Your task to perform on an android device: turn pop-ups on in chrome Image 0: 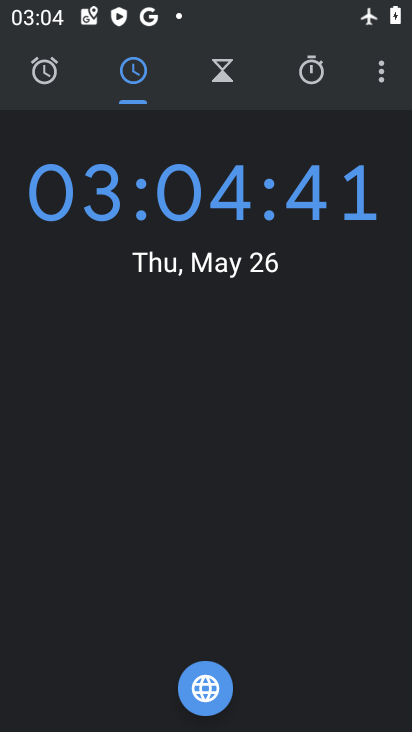
Step 0: press home button
Your task to perform on an android device: turn pop-ups on in chrome Image 1: 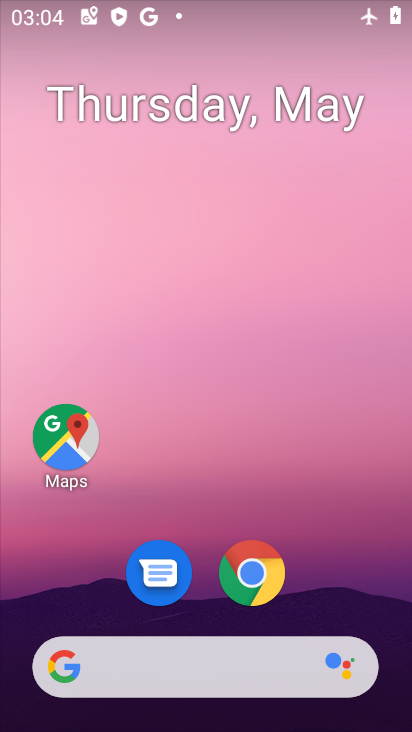
Step 1: click (250, 571)
Your task to perform on an android device: turn pop-ups on in chrome Image 2: 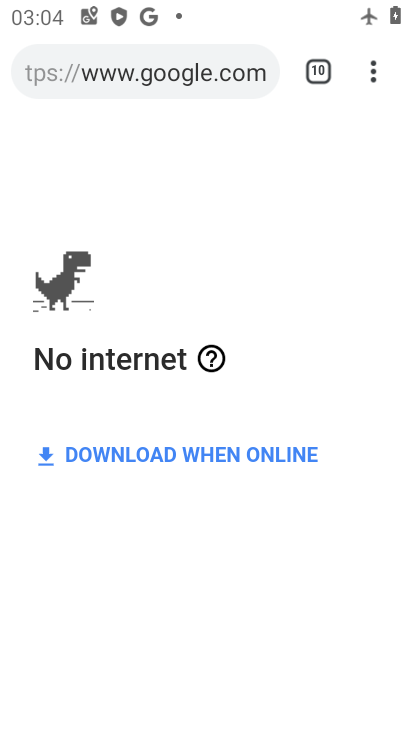
Step 2: click (354, 60)
Your task to perform on an android device: turn pop-ups on in chrome Image 3: 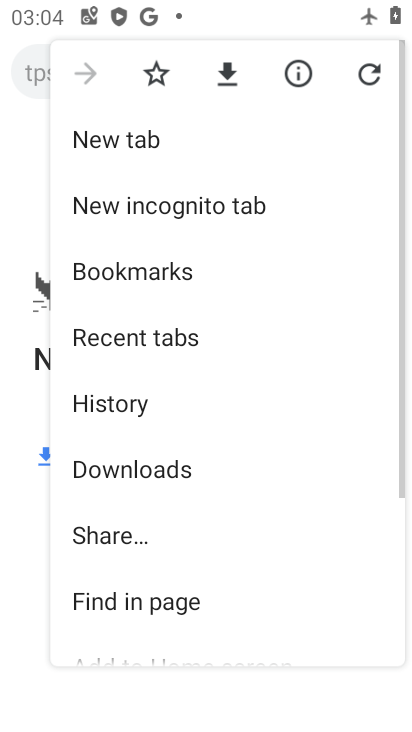
Step 3: drag from (182, 574) to (207, 276)
Your task to perform on an android device: turn pop-ups on in chrome Image 4: 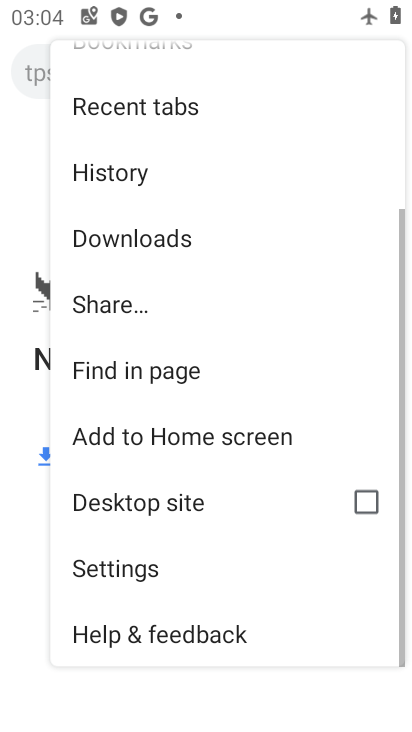
Step 4: click (139, 578)
Your task to perform on an android device: turn pop-ups on in chrome Image 5: 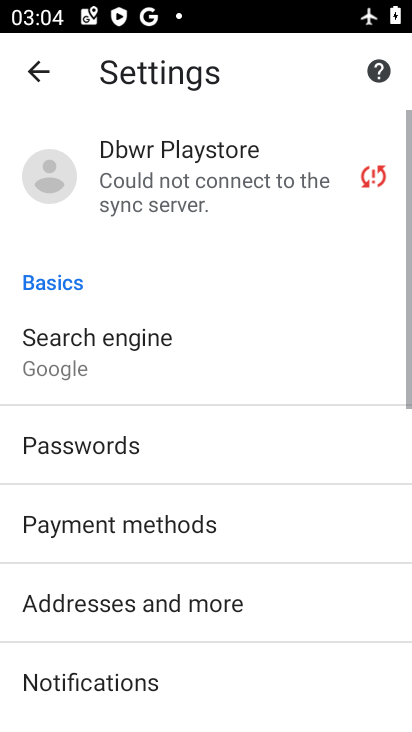
Step 5: drag from (248, 583) to (284, 268)
Your task to perform on an android device: turn pop-ups on in chrome Image 6: 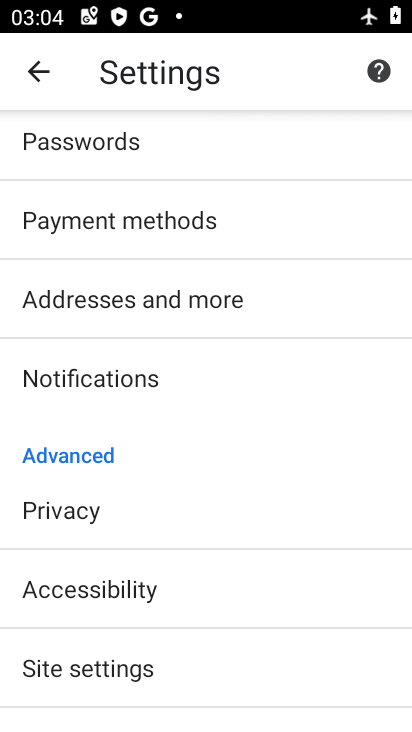
Step 6: click (71, 675)
Your task to perform on an android device: turn pop-ups on in chrome Image 7: 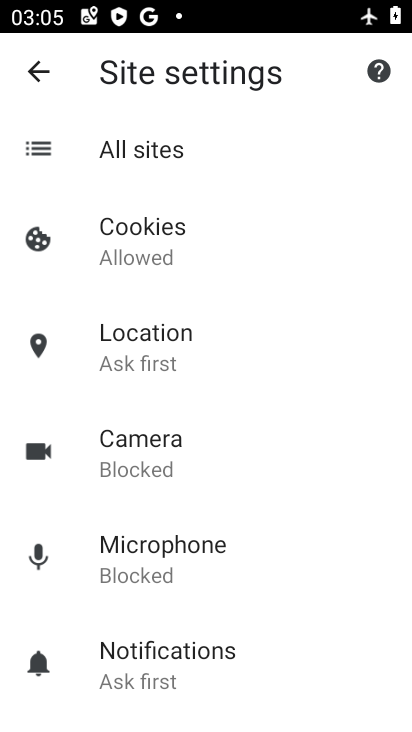
Step 7: drag from (244, 629) to (209, 234)
Your task to perform on an android device: turn pop-ups on in chrome Image 8: 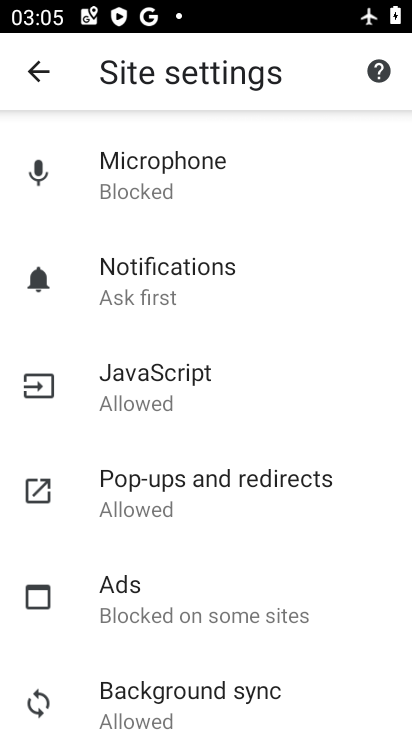
Step 8: click (178, 495)
Your task to perform on an android device: turn pop-ups on in chrome Image 9: 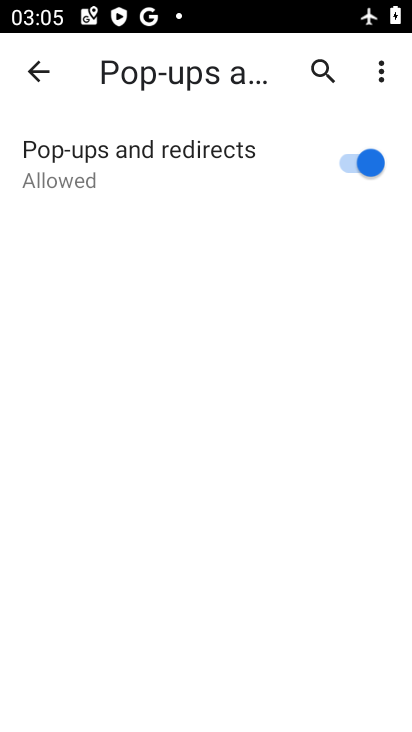
Step 9: task complete